Your task to perform on an android device: Search for vegetarian restaurants on Maps Image 0: 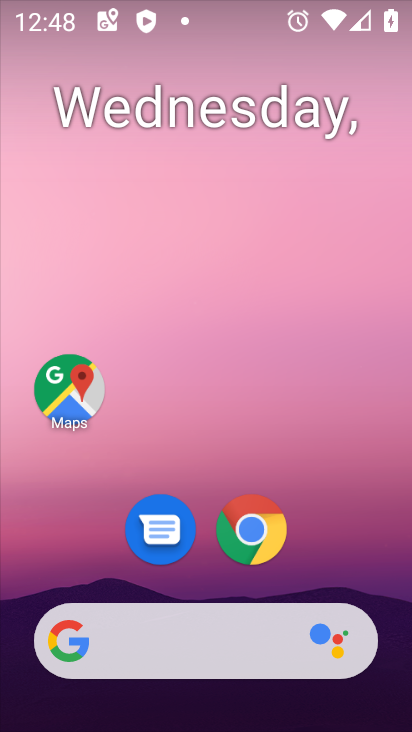
Step 0: click (71, 389)
Your task to perform on an android device: Search for vegetarian restaurants on Maps Image 1: 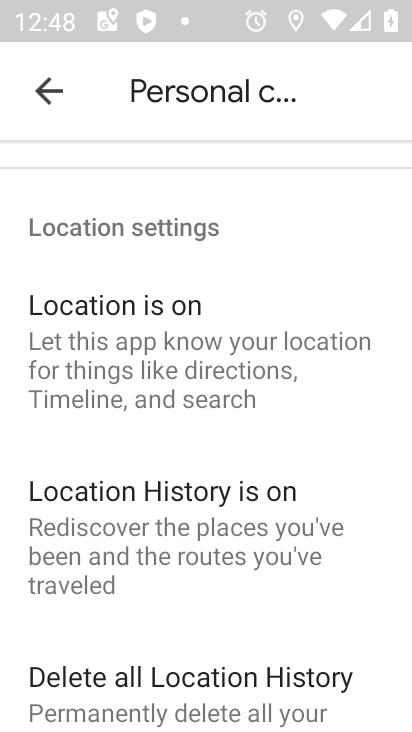
Step 1: press back button
Your task to perform on an android device: Search for vegetarian restaurants on Maps Image 2: 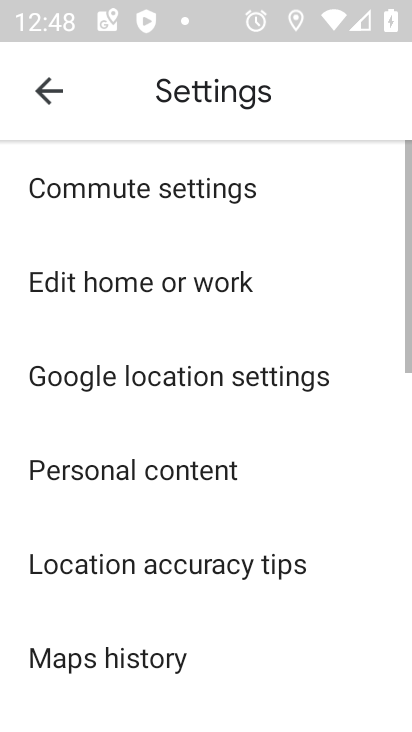
Step 2: press back button
Your task to perform on an android device: Search for vegetarian restaurants on Maps Image 3: 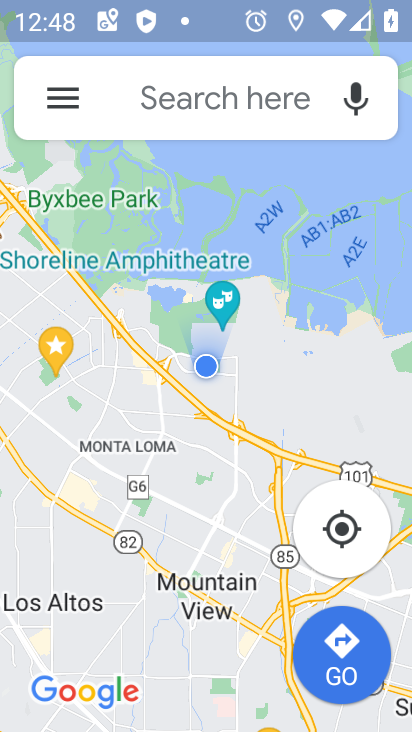
Step 3: click (149, 103)
Your task to perform on an android device: Search for vegetarian restaurants on Maps Image 4: 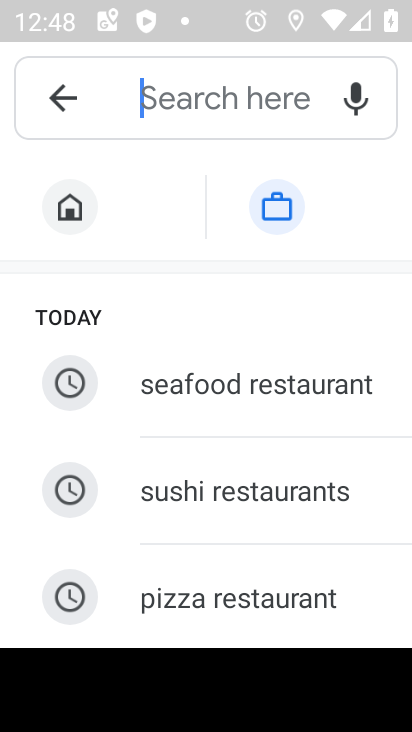
Step 4: type "vegetarian restaurants"
Your task to perform on an android device: Search for vegetarian restaurants on Maps Image 5: 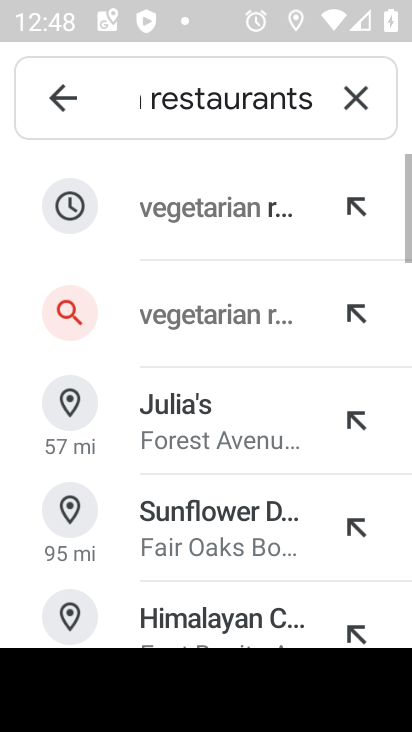
Step 5: click (185, 211)
Your task to perform on an android device: Search for vegetarian restaurants on Maps Image 6: 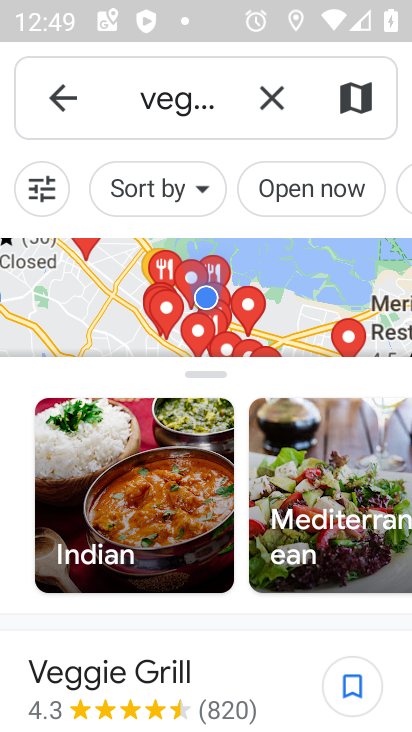
Step 6: task complete